Your task to perform on an android device: Open Google Maps and go to "Timeline" Image 0: 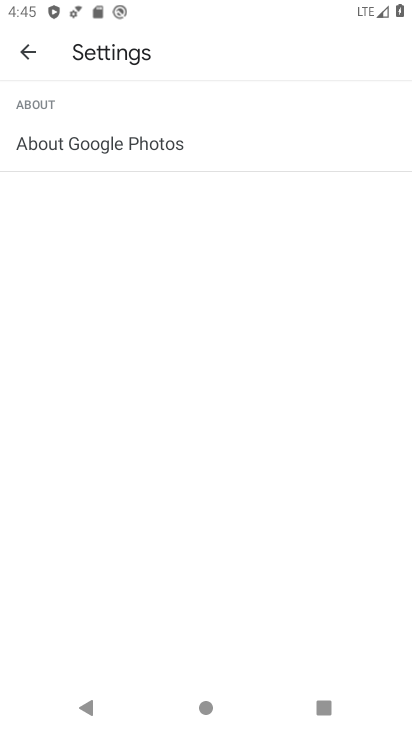
Step 0: press back button
Your task to perform on an android device: Open Google Maps and go to "Timeline" Image 1: 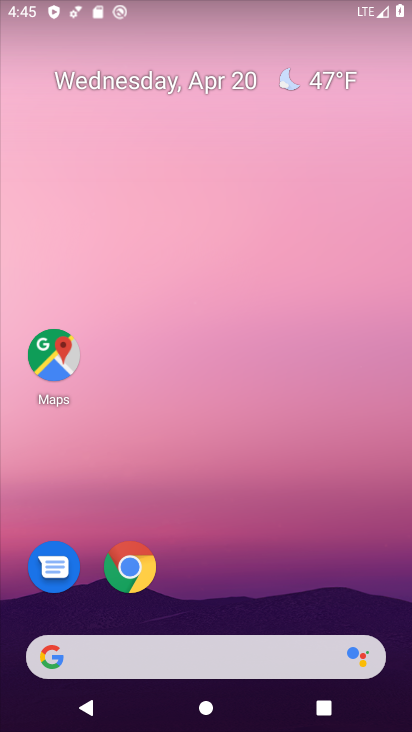
Step 1: drag from (244, 548) to (227, 83)
Your task to perform on an android device: Open Google Maps and go to "Timeline" Image 2: 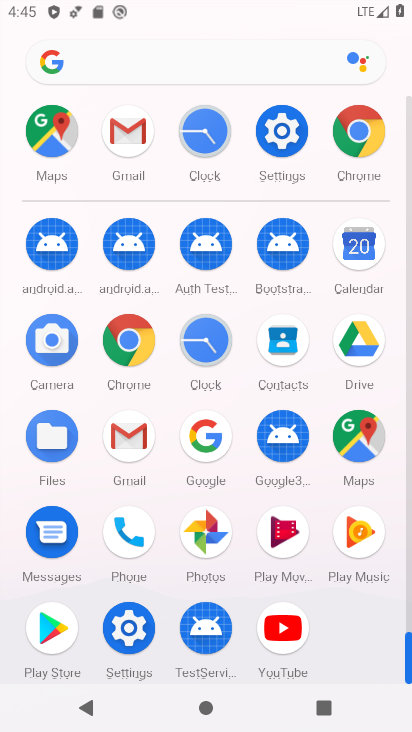
Step 2: drag from (12, 473) to (22, 246)
Your task to perform on an android device: Open Google Maps and go to "Timeline" Image 3: 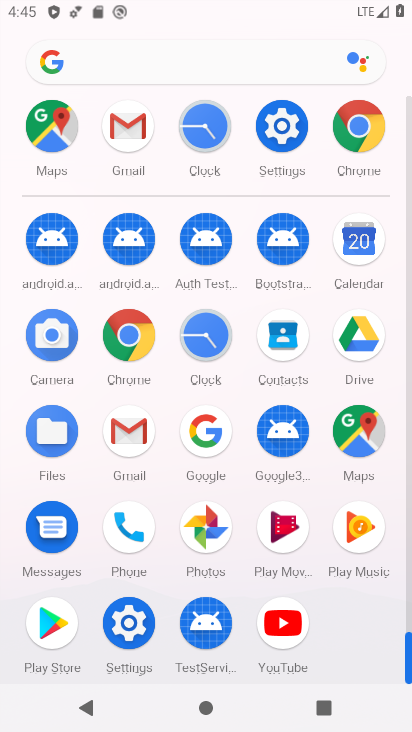
Step 3: click (56, 128)
Your task to perform on an android device: Open Google Maps and go to "Timeline" Image 4: 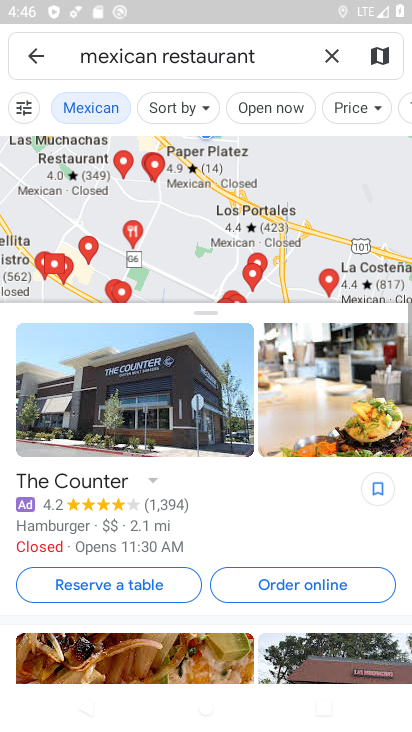
Step 4: click (44, 55)
Your task to perform on an android device: Open Google Maps and go to "Timeline" Image 5: 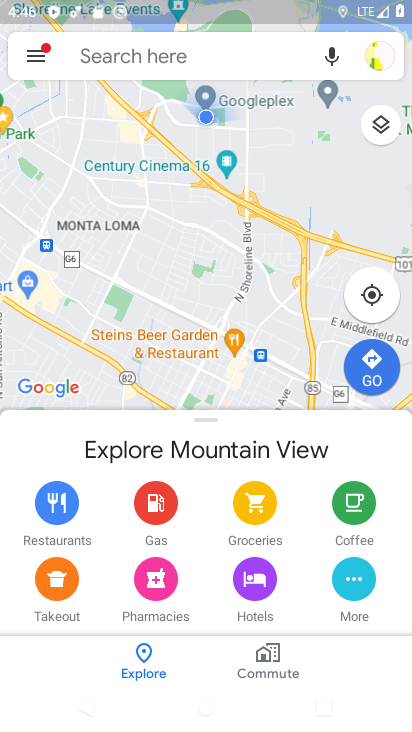
Step 5: click (40, 56)
Your task to perform on an android device: Open Google Maps and go to "Timeline" Image 6: 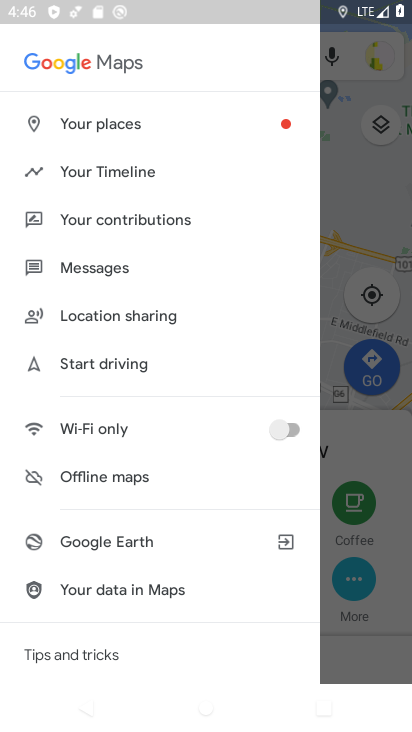
Step 6: click (61, 167)
Your task to perform on an android device: Open Google Maps and go to "Timeline" Image 7: 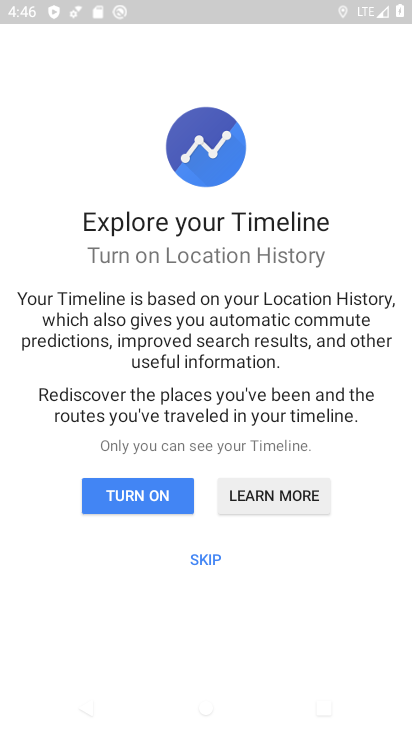
Step 7: click (129, 486)
Your task to perform on an android device: Open Google Maps and go to "Timeline" Image 8: 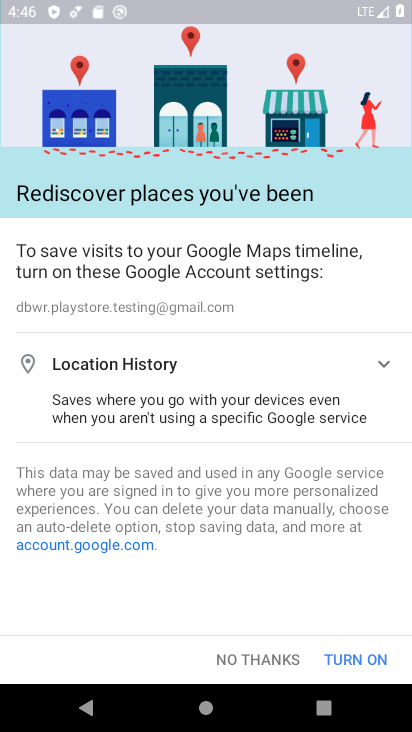
Step 8: click (368, 656)
Your task to perform on an android device: Open Google Maps and go to "Timeline" Image 9: 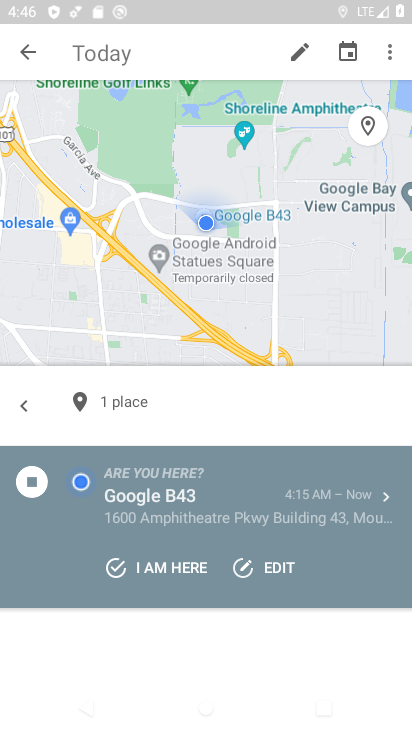
Step 9: task complete